Your task to perform on an android device: Check the weather Image 0: 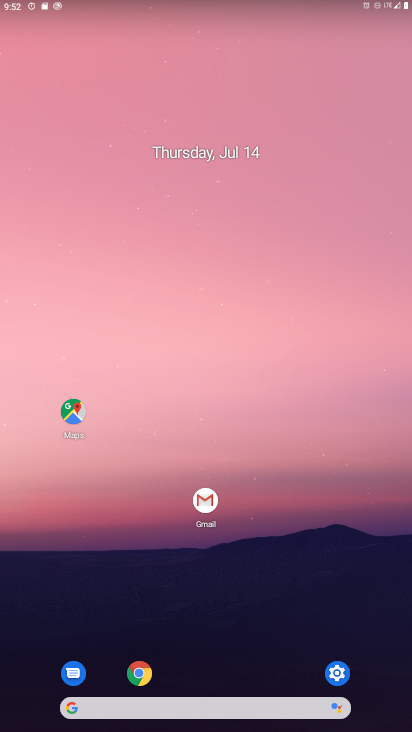
Step 0: click (166, 714)
Your task to perform on an android device: Check the weather Image 1: 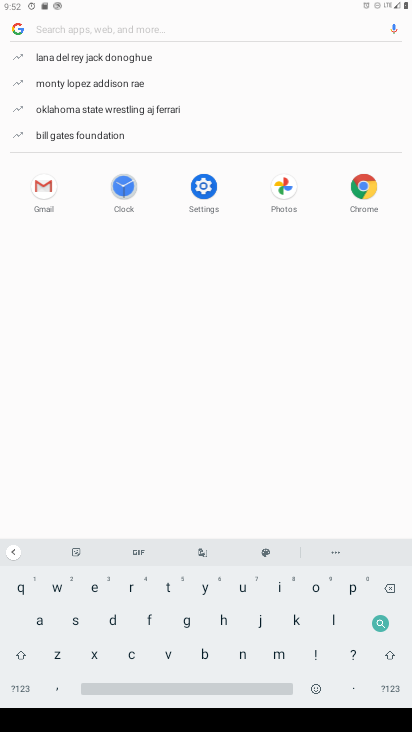
Step 1: click (57, 583)
Your task to perform on an android device: Check the weather Image 2: 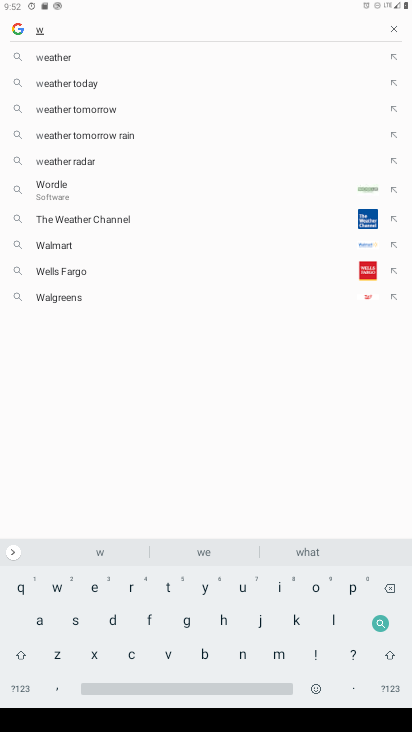
Step 2: click (94, 588)
Your task to perform on an android device: Check the weather Image 3: 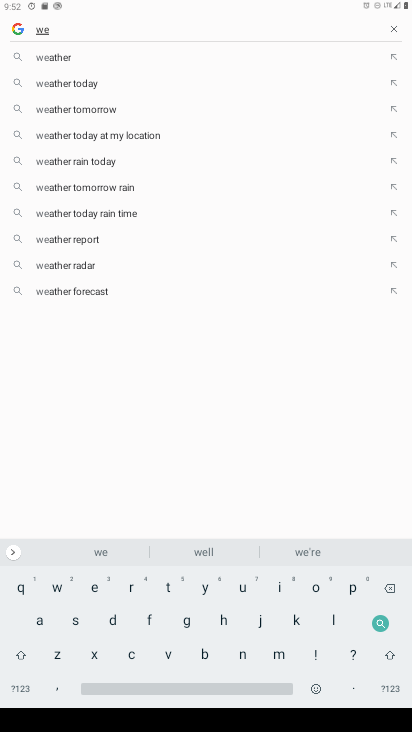
Step 3: click (76, 64)
Your task to perform on an android device: Check the weather Image 4: 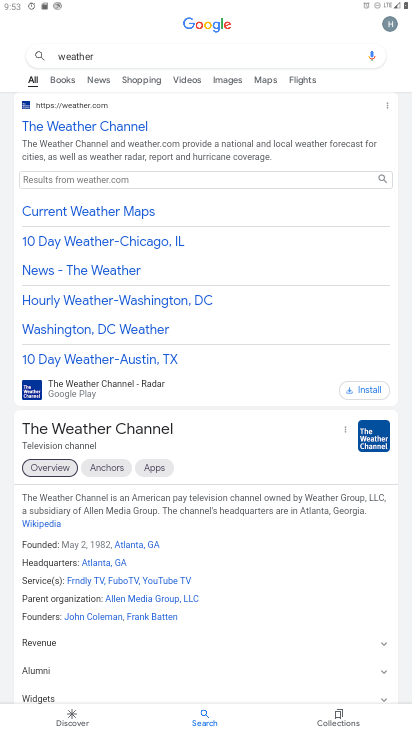
Step 4: task complete